Your task to perform on an android device: toggle airplane mode Image 0: 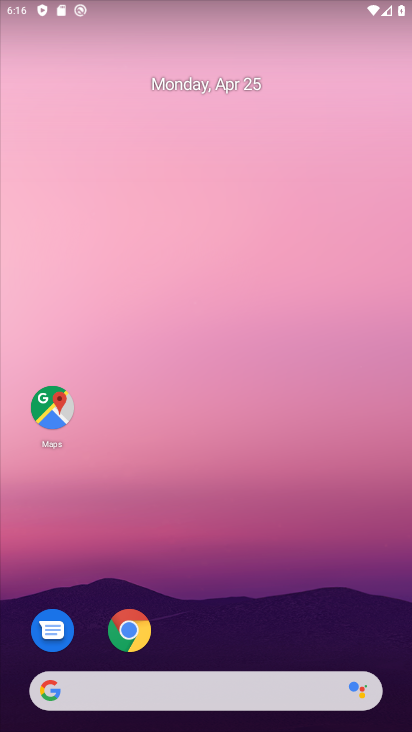
Step 0: drag from (256, 587) to (178, 25)
Your task to perform on an android device: toggle airplane mode Image 1: 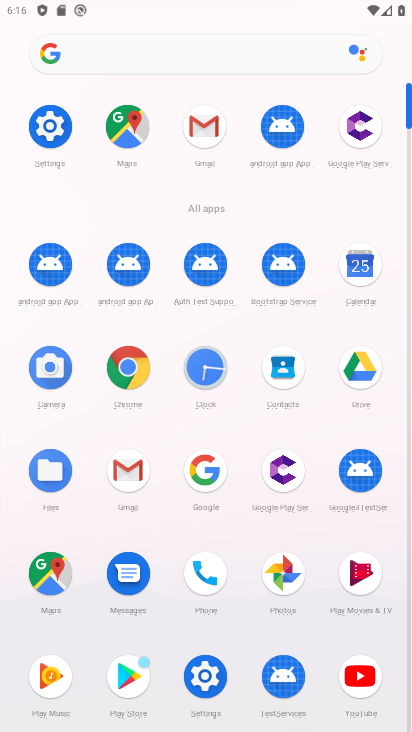
Step 1: click (46, 126)
Your task to perform on an android device: toggle airplane mode Image 2: 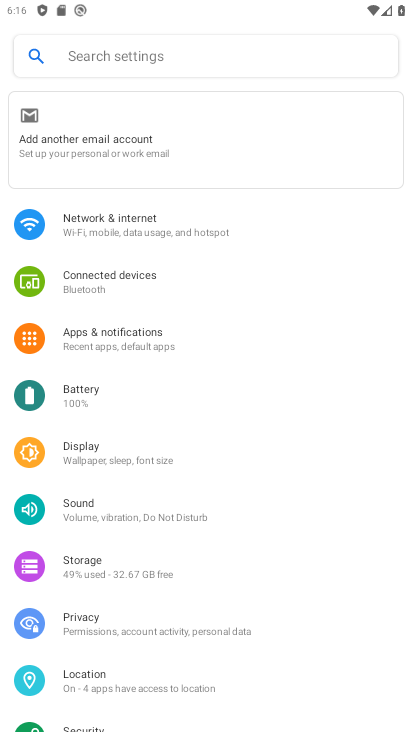
Step 2: click (191, 211)
Your task to perform on an android device: toggle airplane mode Image 3: 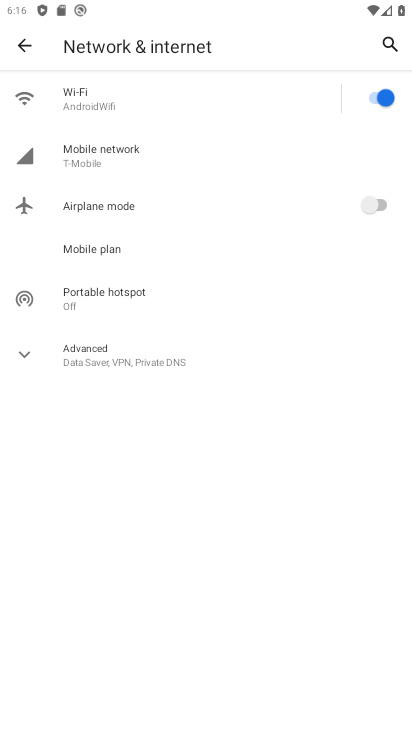
Step 3: click (374, 192)
Your task to perform on an android device: toggle airplane mode Image 4: 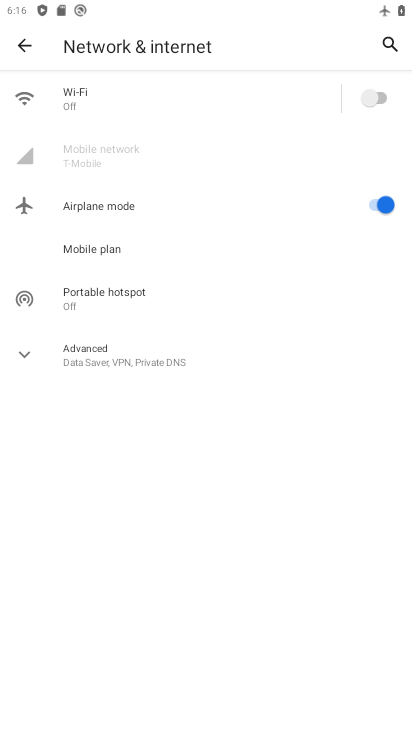
Step 4: task complete